Your task to perform on an android device: toggle priority inbox in the gmail app Image 0: 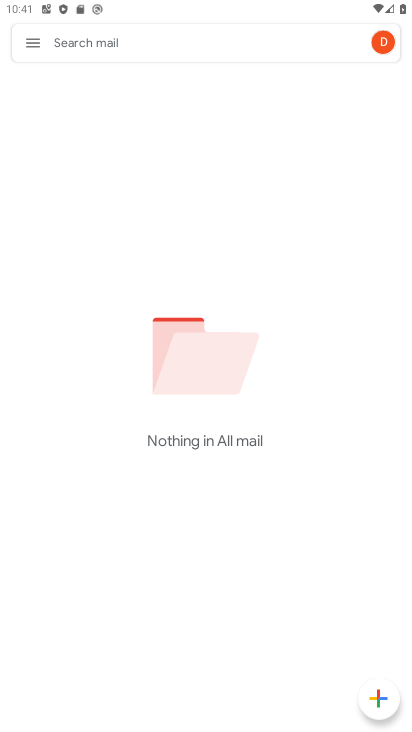
Step 0: press home button
Your task to perform on an android device: toggle priority inbox in the gmail app Image 1: 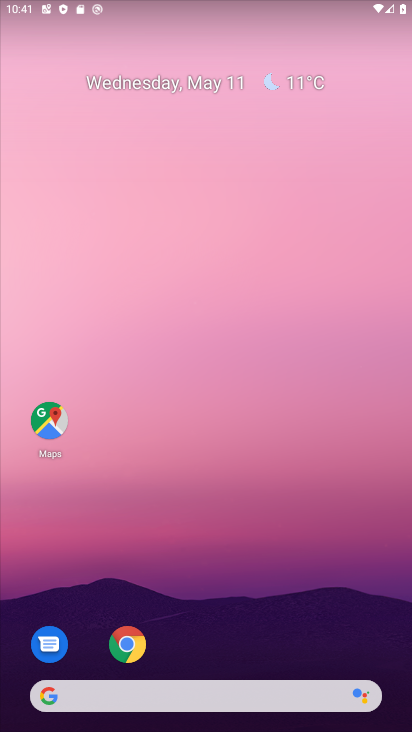
Step 1: drag from (262, 641) to (259, 3)
Your task to perform on an android device: toggle priority inbox in the gmail app Image 2: 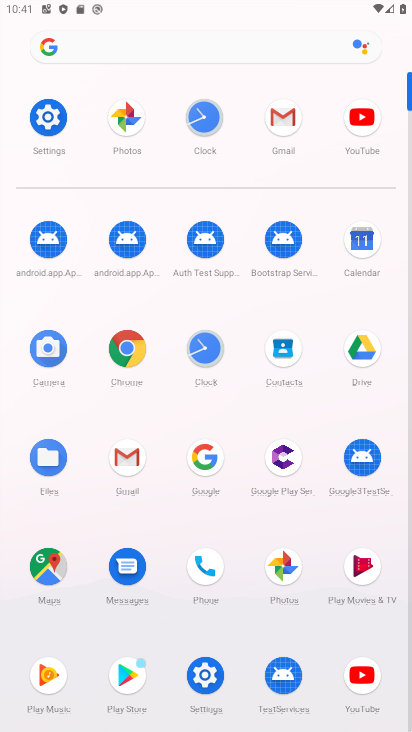
Step 2: click (274, 114)
Your task to perform on an android device: toggle priority inbox in the gmail app Image 3: 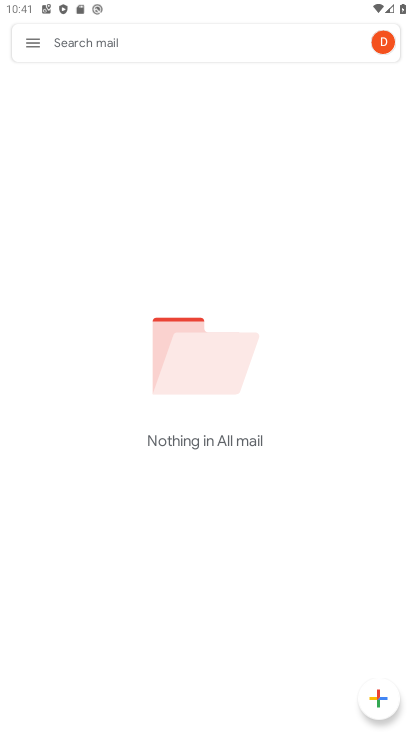
Step 3: click (32, 43)
Your task to perform on an android device: toggle priority inbox in the gmail app Image 4: 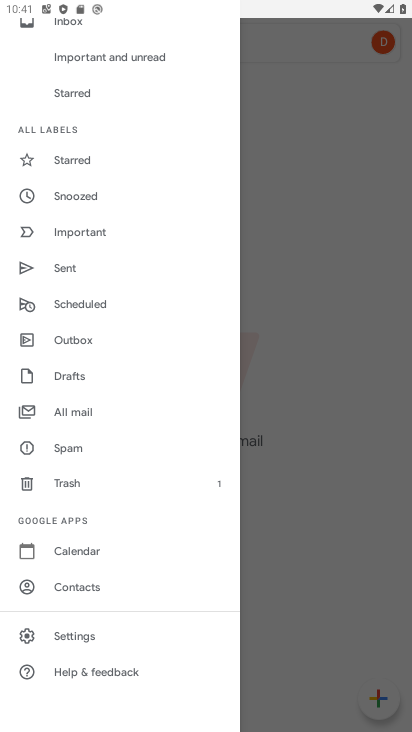
Step 4: click (61, 639)
Your task to perform on an android device: toggle priority inbox in the gmail app Image 5: 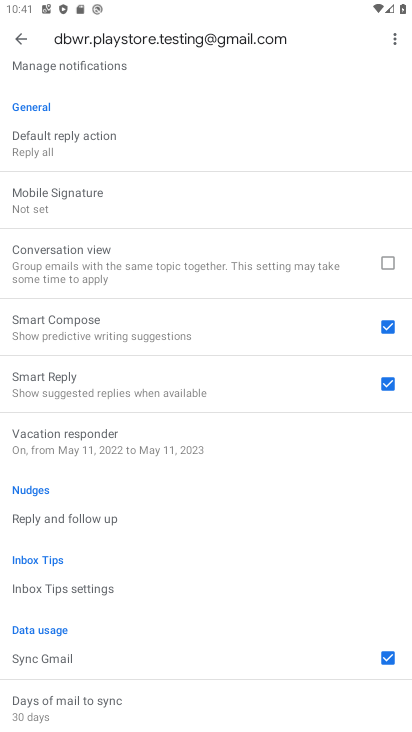
Step 5: drag from (160, 203) to (198, 675)
Your task to perform on an android device: toggle priority inbox in the gmail app Image 6: 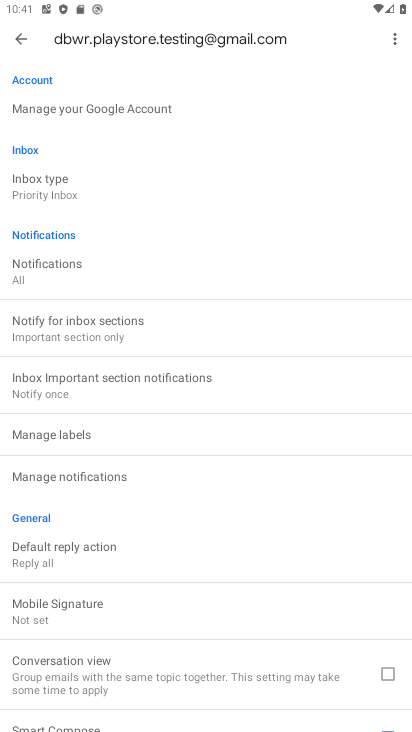
Step 6: click (47, 195)
Your task to perform on an android device: toggle priority inbox in the gmail app Image 7: 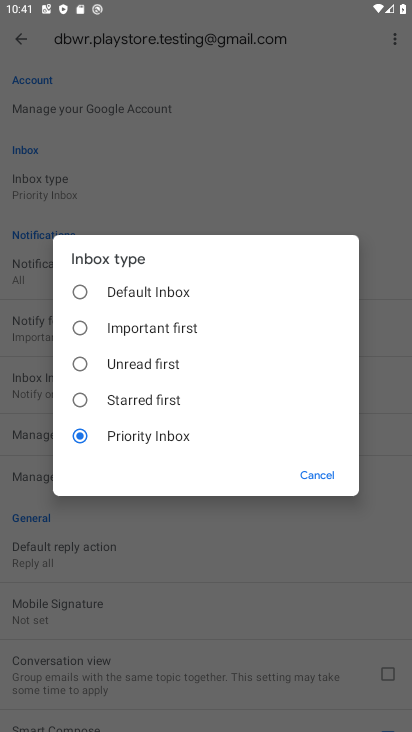
Step 7: click (85, 295)
Your task to perform on an android device: toggle priority inbox in the gmail app Image 8: 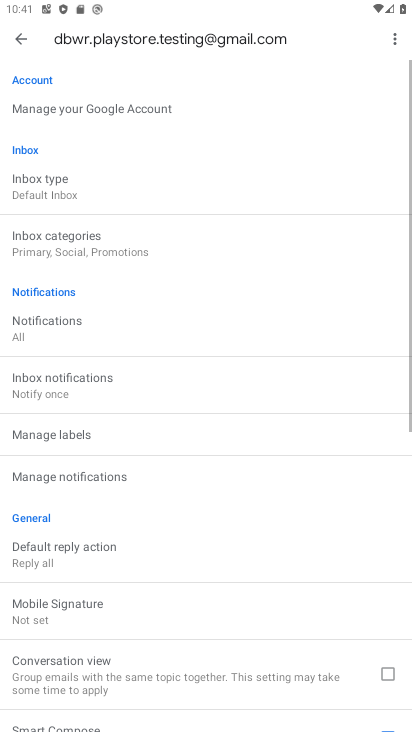
Step 8: task complete